Your task to perform on an android device: Open Google Maps Image 0: 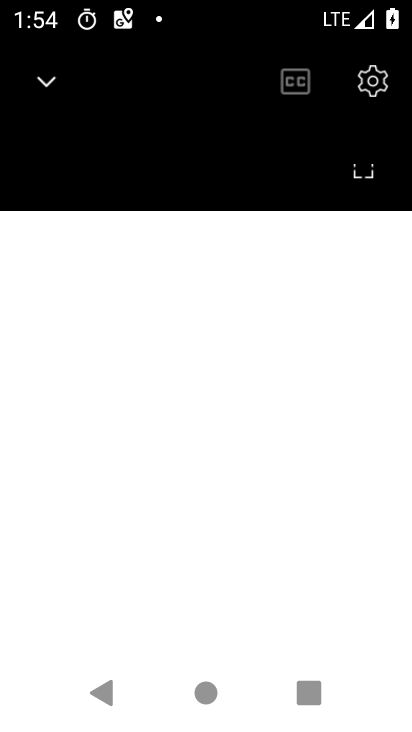
Step 0: click (212, 268)
Your task to perform on an android device: Open Google Maps Image 1: 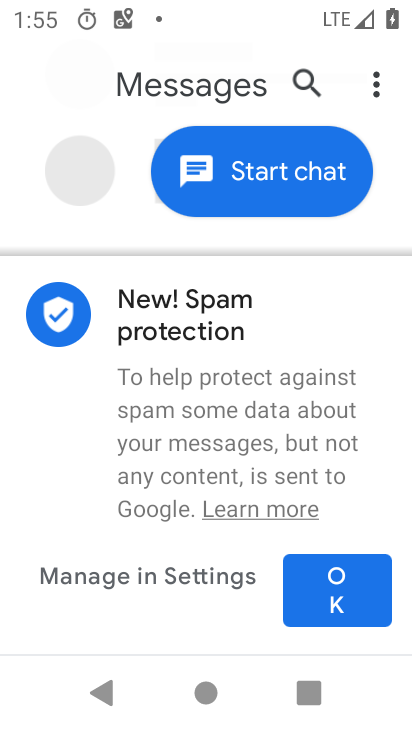
Step 1: press home button
Your task to perform on an android device: Open Google Maps Image 2: 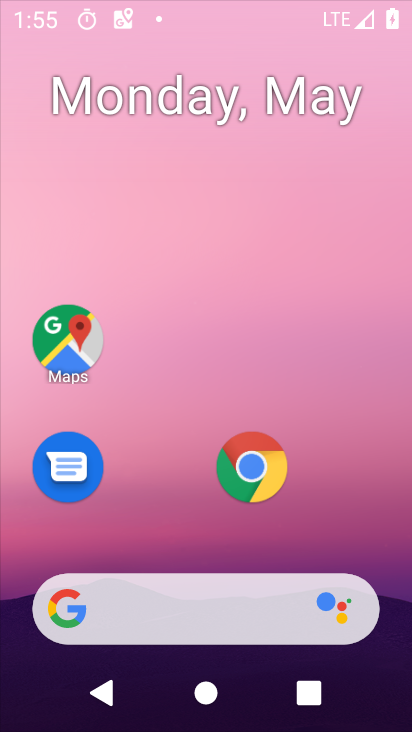
Step 2: drag from (214, 604) to (257, 82)
Your task to perform on an android device: Open Google Maps Image 3: 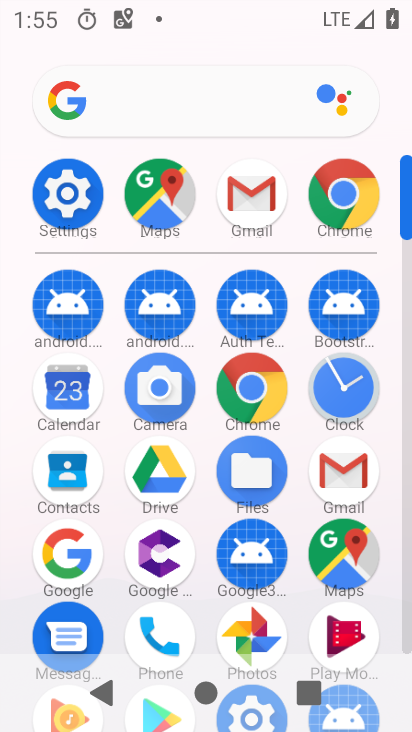
Step 3: click (342, 549)
Your task to perform on an android device: Open Google Maps Image 4: 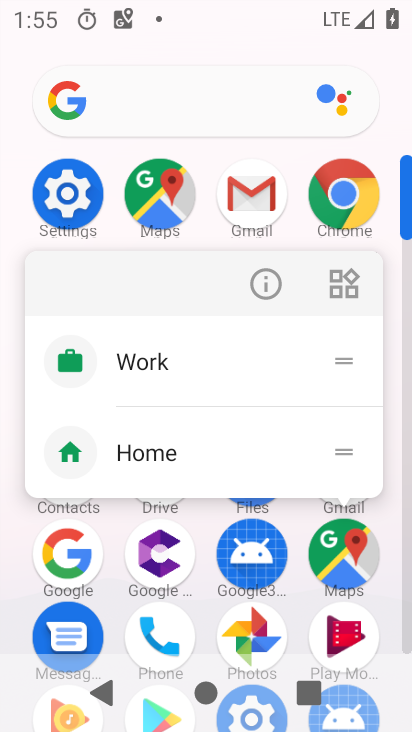
Step 4: click (261, 273)
Your task to perform on an android device: Open Google Maps Image 5: 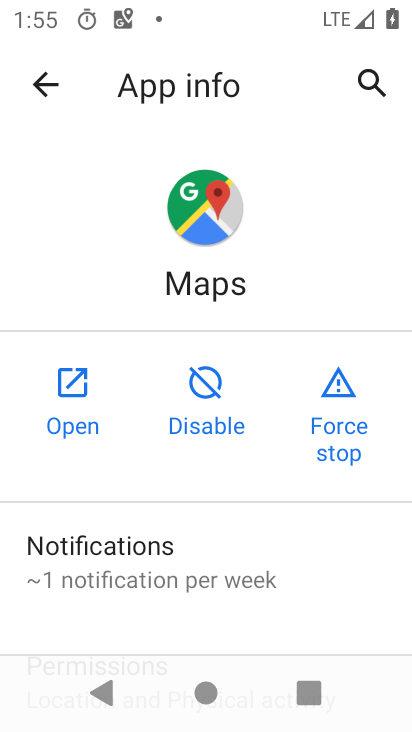
Step 5: click (99, 394)
Your task to perform on an android device: Open Google Maps Image 6: 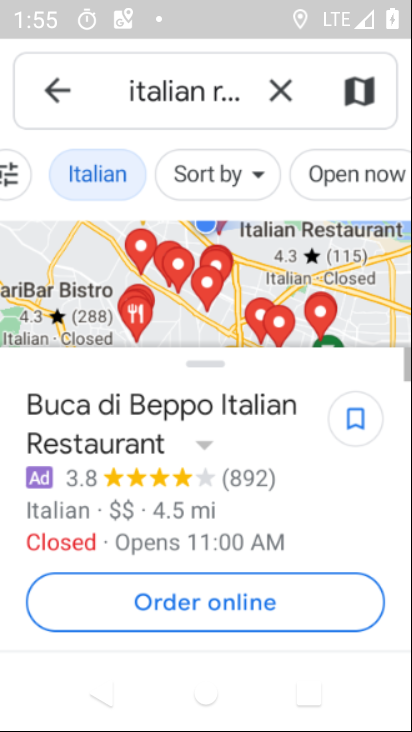
Step 6: task complete